Your task to perform on an android device: open a new tab in the chrome app Image 0: 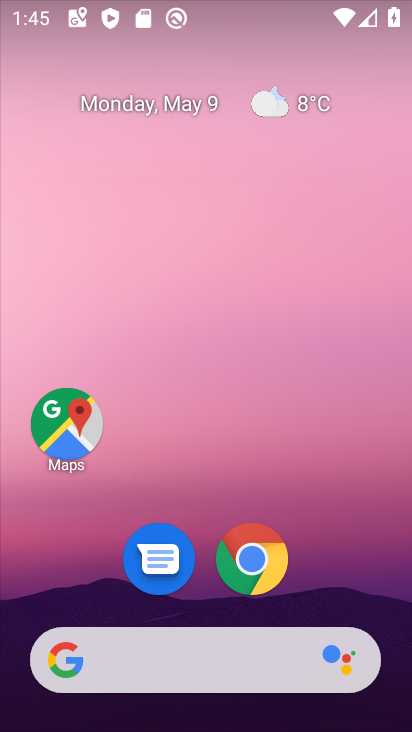
Step 0: click (252, 569)
Your task to perform on an android device: open a new tab in the chrome app Image 1: 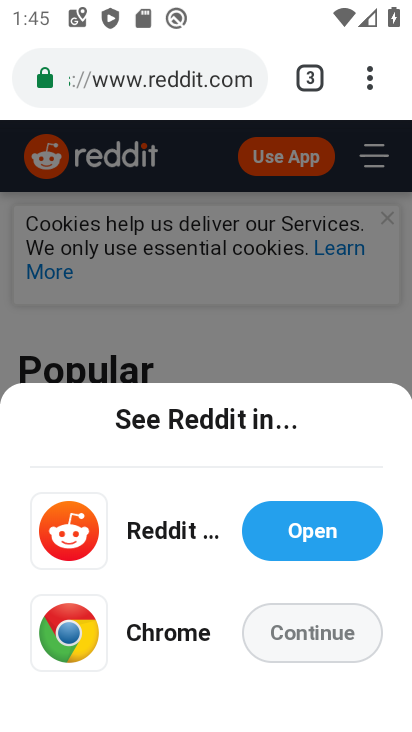
Step 1: click (369, 72)
Your task to perform on an android device: open a new tab in the chrome app Image 2: 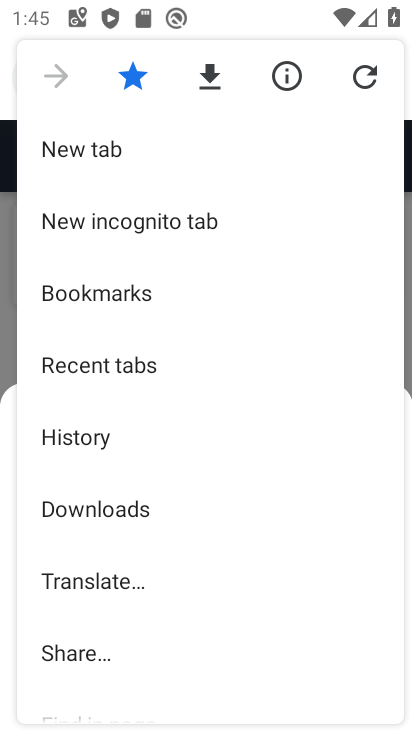
Step 2: click (85, 152)
Your task to perform on an android device: open a new tab in the chrome app Image 3: 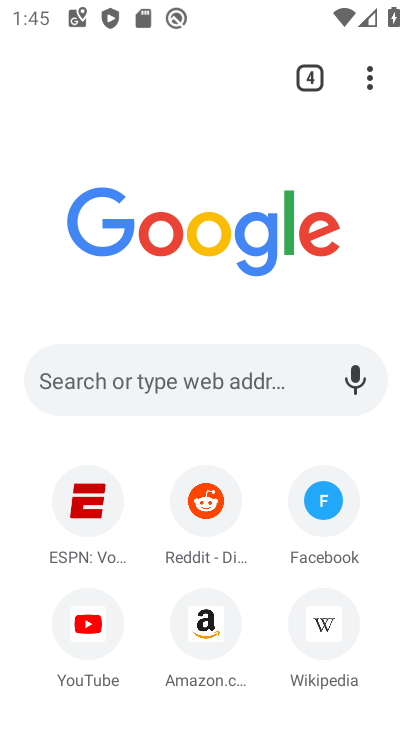
Step 3: task complete